Your task to perform on an android device: change keyboard looks Image 0: 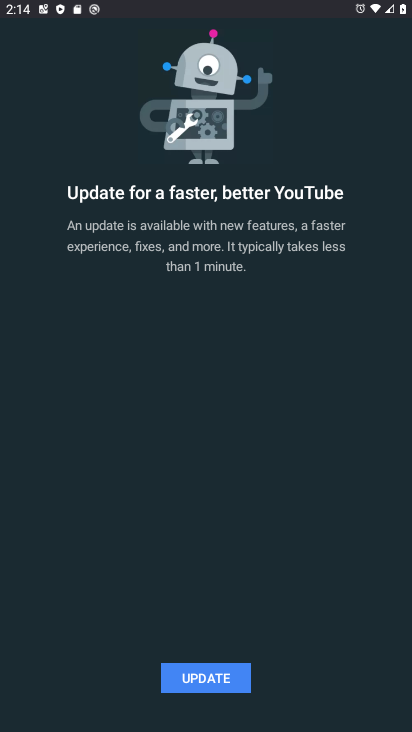
Step 0: press home button
Your task to perform on an android device: change keyboard looks Image 1: 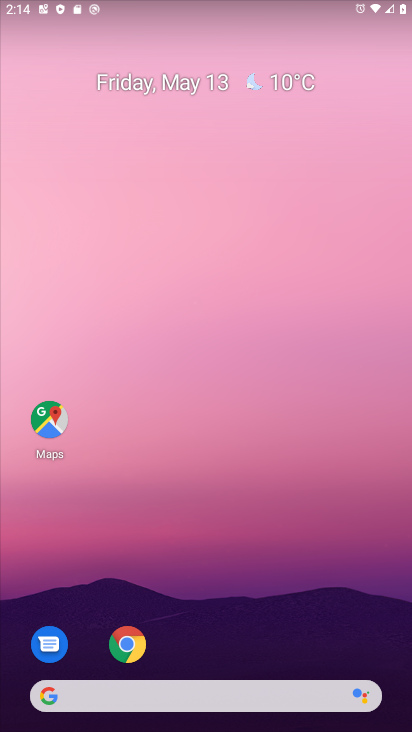
Step 1: drag from (211, 722) to (215, 216)
Your task to perform on an android device: change keyboard looks Image 2: 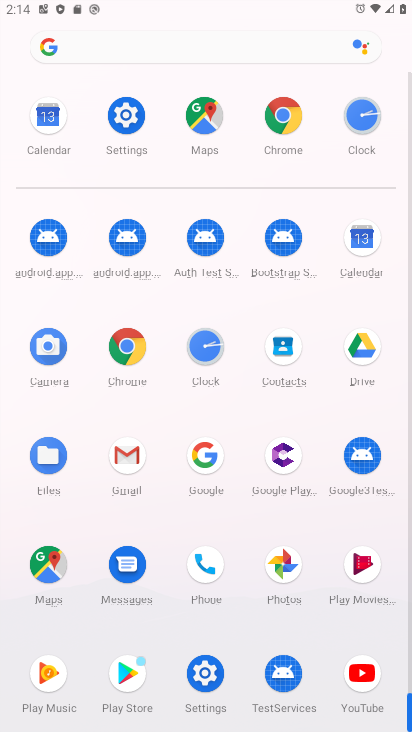
Step 2: click (212, 666)
Your task to perform on an android device: change keyboard looks Image 3: 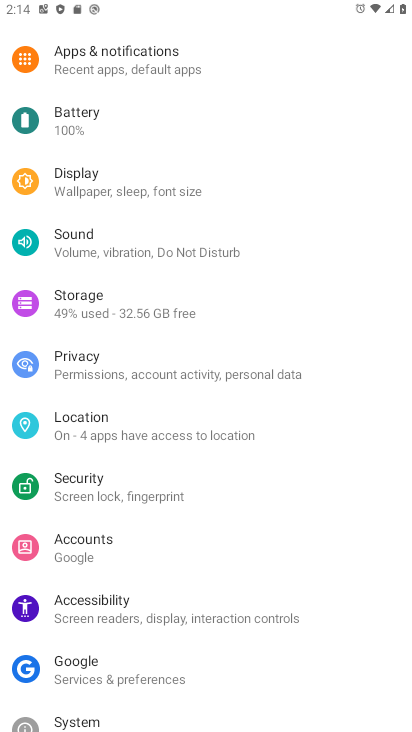
Step 3: drag from (106, 677) to (109, 351)
Your task to perform on an android device: change keyboard looks Image 4: 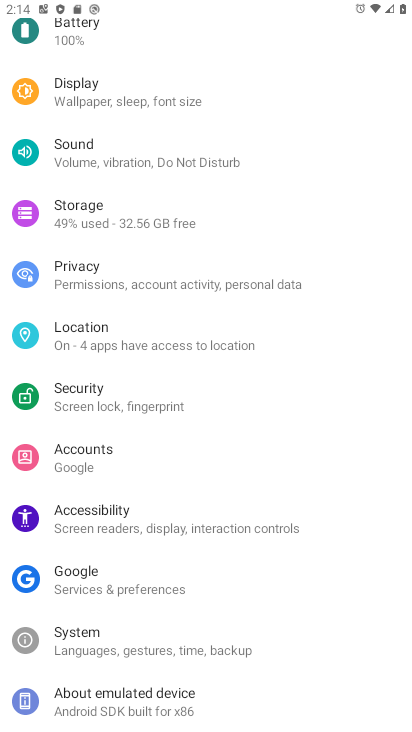
Step 4: click (90, 646)
Your task to perform on an android device: change keyboard looks Image 5: 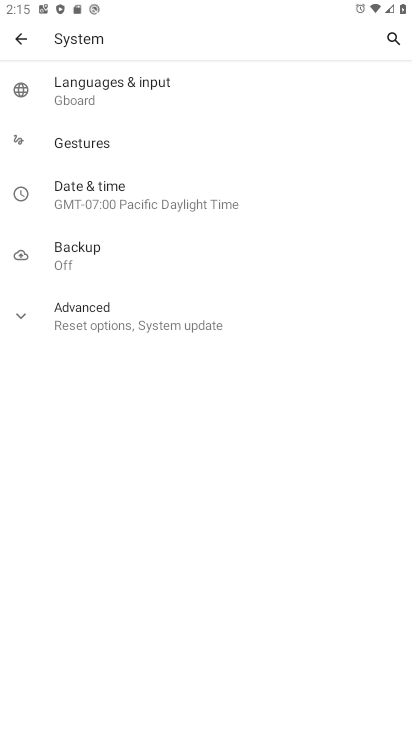
Step 5: click (81, 88)
Your task to perform on an android device: change keyboard looks Image 6: 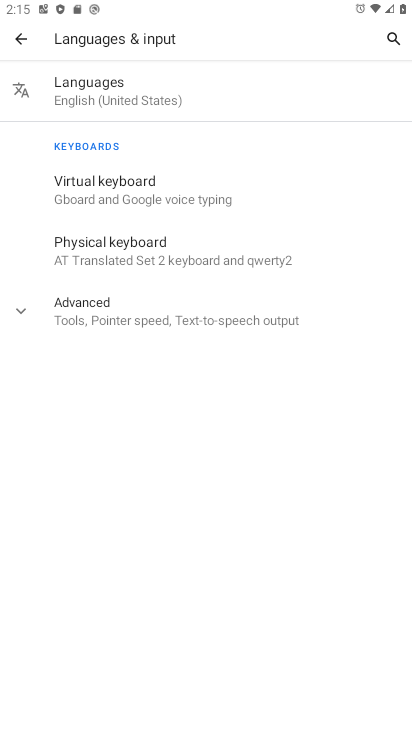
Step 6: click (115, 180)
Your task to perform on an android device: change keyboard looks Image 7: 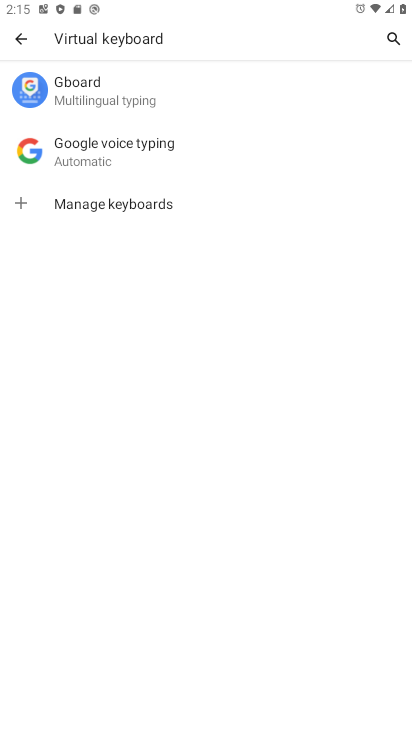
Step 7: click (99, 94)
Your task to perform on an android device: change keyboard looks Image 8: 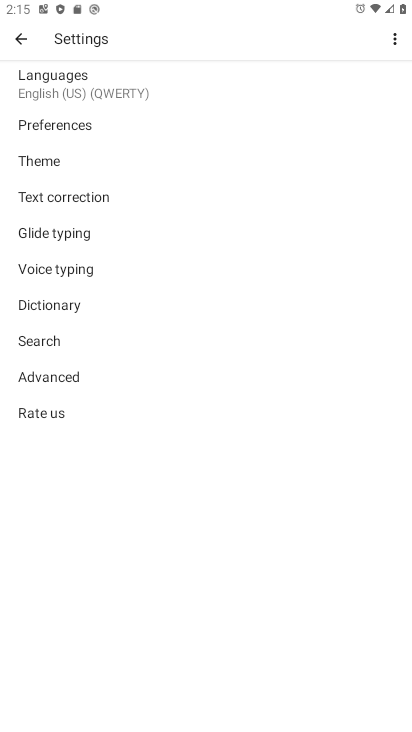
Step 8: click (46, 153)
Your task to perform on an android device: change keyboard looks Image 9: 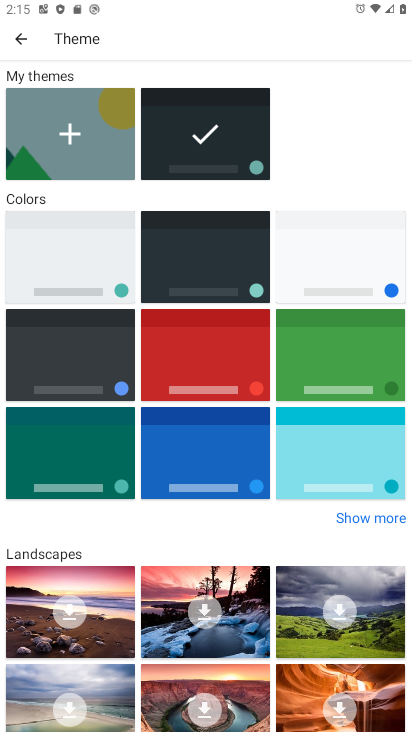
Step 9: click (202, 254)
Your task to perform on an android device: change keyboard looks Image 10: 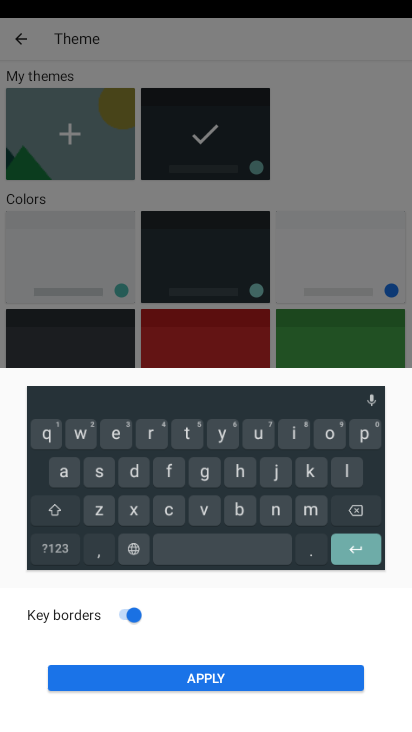
Step 10: click (303, 275)
Your task to perform on an android device: change keyboard looks Image 11: 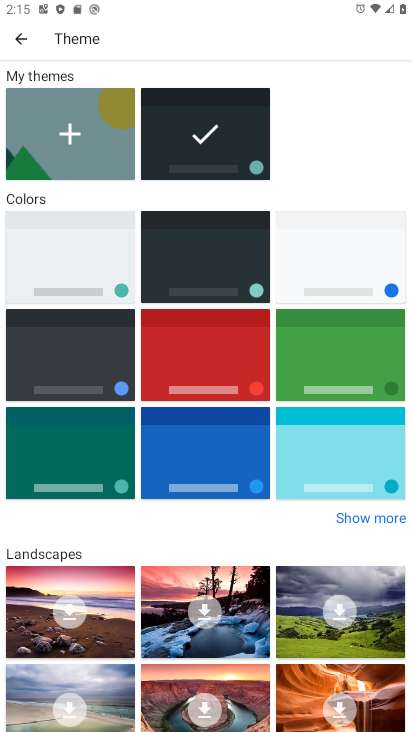
Step 11: click (315, 271)
Your task to perform on an android device: change keyboard looks Image 12: 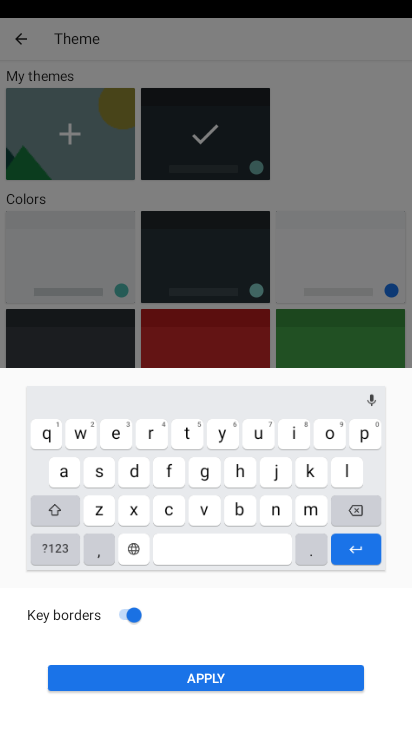
Step 12: click (208, 678)
Your task to perform on an android device: change keyboard looks Image 13: 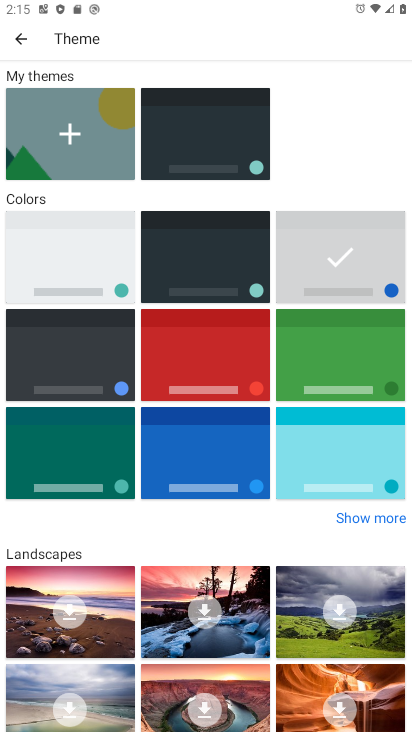
Step 13: task complete